Your task to perform on an android device: What's the weather like in Seoul? Image 0: 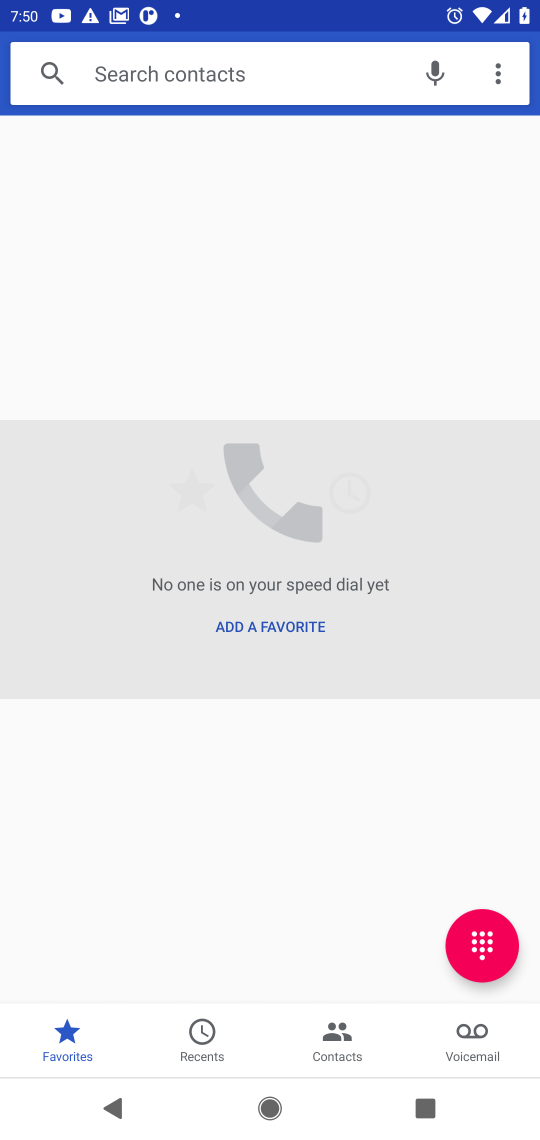
Step 0: press home button
Your task to perform on an android device: What's the weather like in Seoul? Image 1: 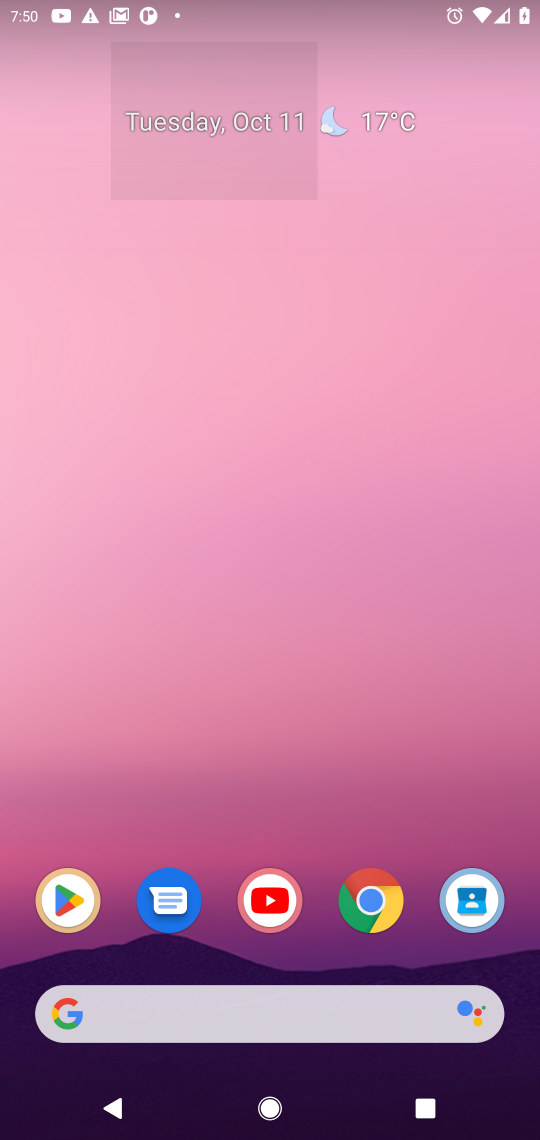
Step 1: click (374, 903)
Your task to perform on an android device: What's the weather like in Seoul? Image 2: 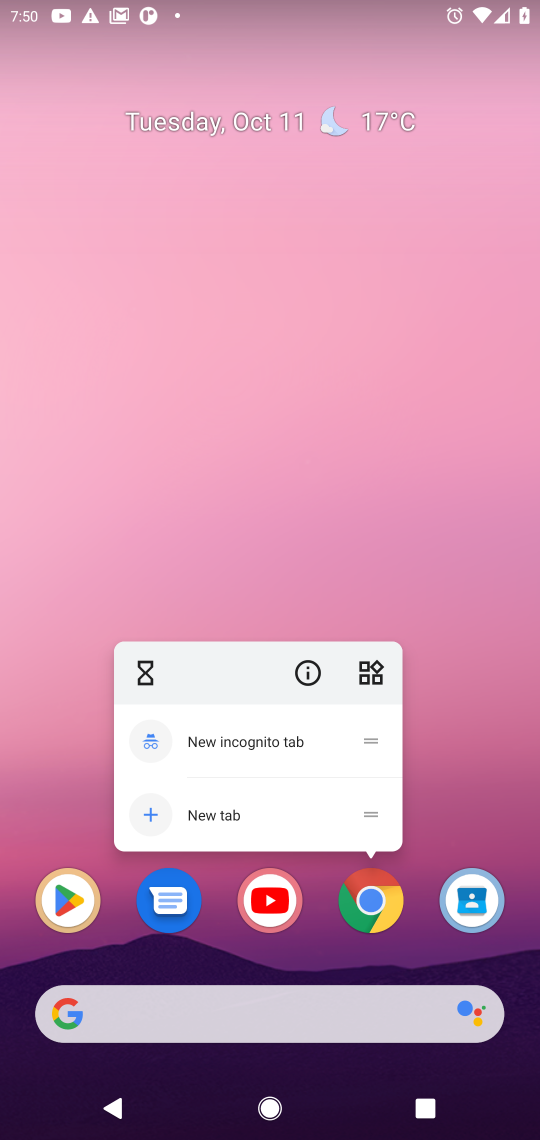
Step 2: click (374, 903)
Your task to perform on an android device: What's the weather like in Seoul? Image 3: 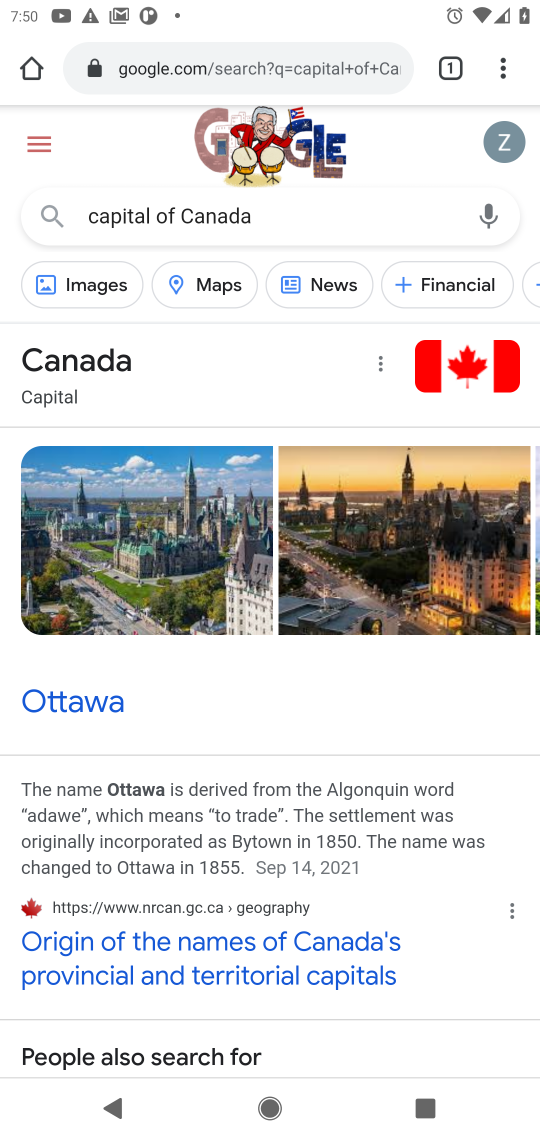
Step 3: click (212, 62)
Your task to perform on an android device: What's the weather like in Seoul? Image 4: 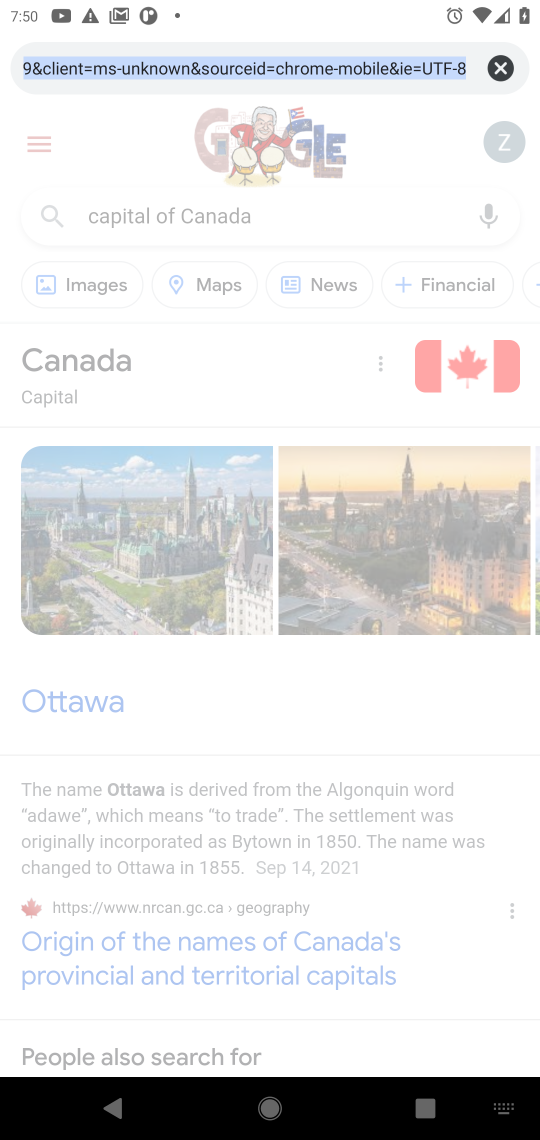
Step 4: click (496, 64)
Your task to perform on an android device: What's the weather like in Seoul? Image 5: 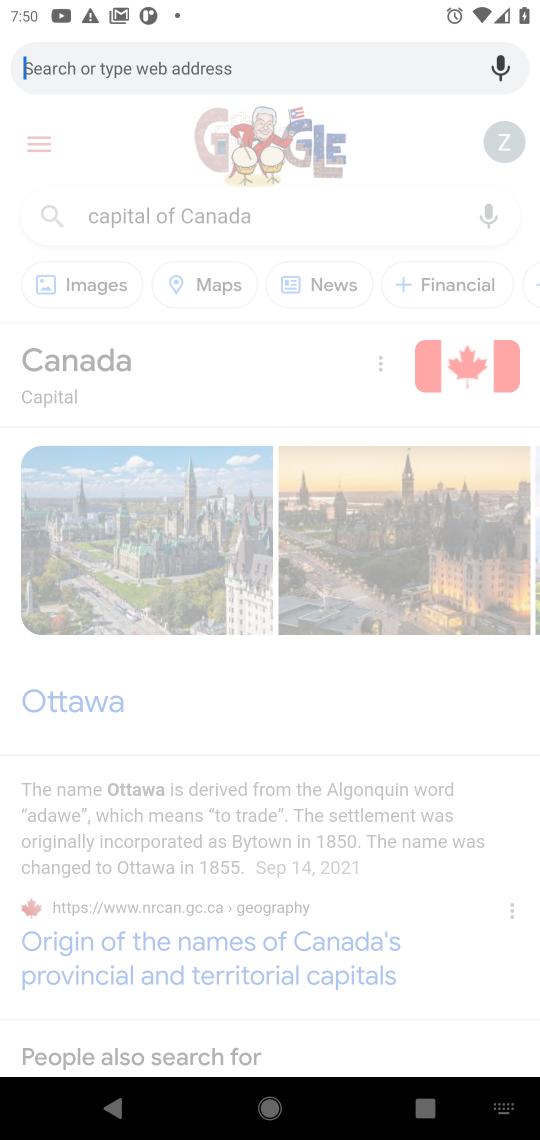
Step 5: press enter
Your task to perform on an android device: What's the weather like in Seoul? Image 6: 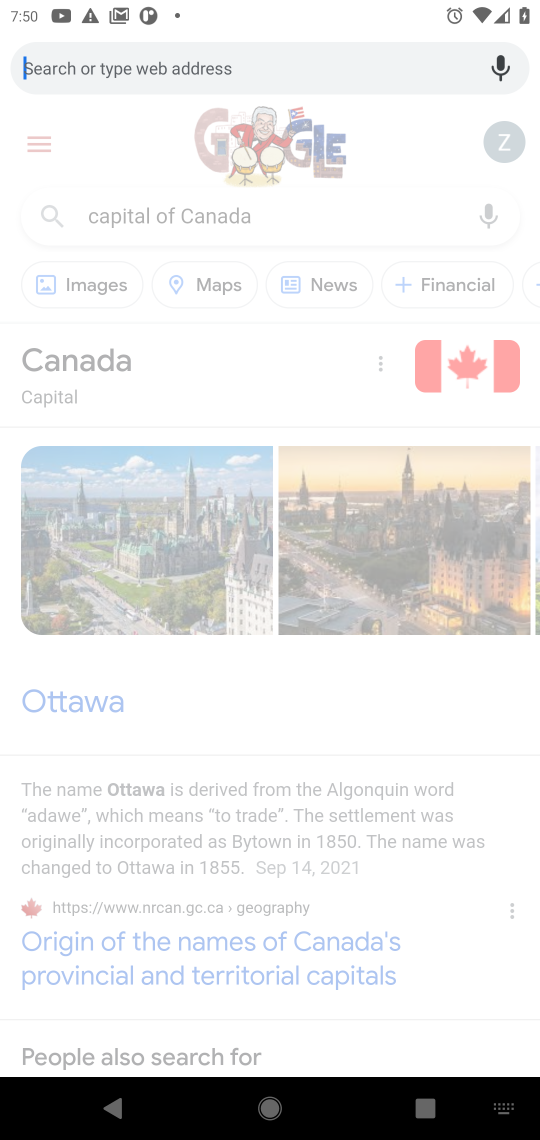
Step 6: type "weather like in Seoul"
Your task to perform on an android device: What's the weather like in Seoul? Image 7: 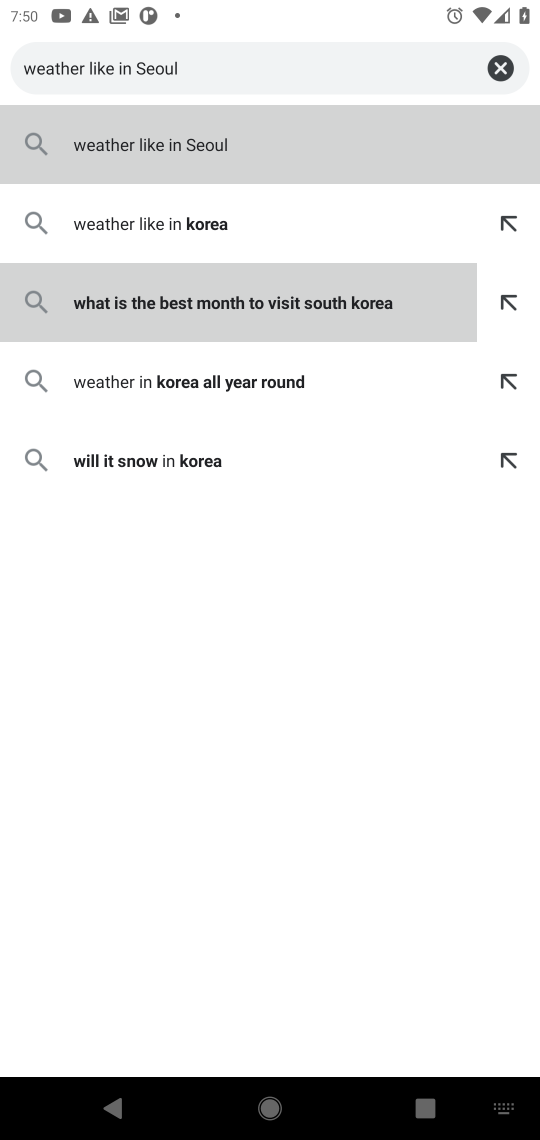
Step 7: click (156, 141)
Your task to perform on an android device: What's the weather like in Seoul? Image 8: 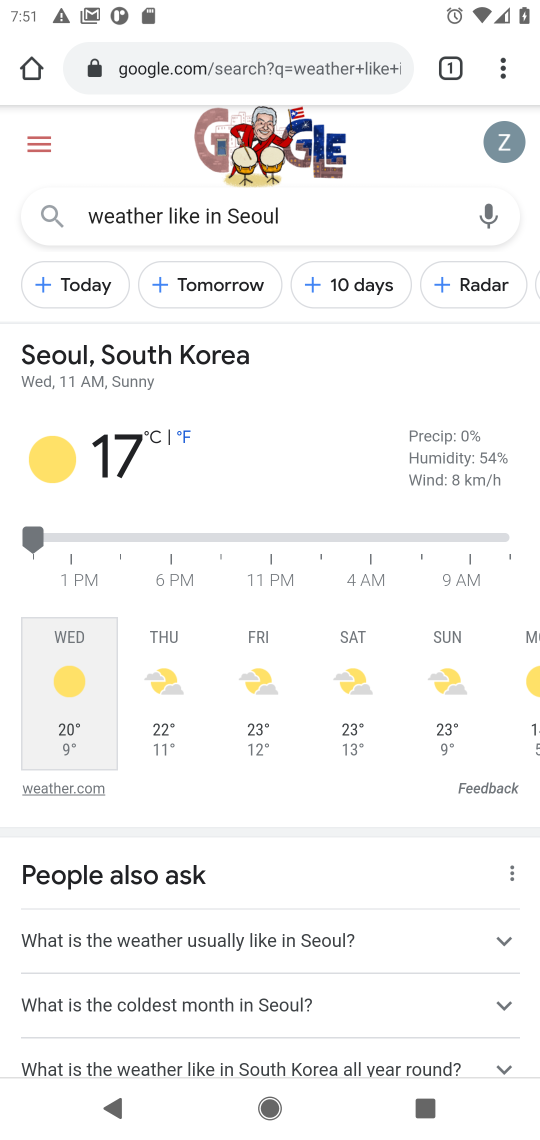
Step 8: task complete